Your task to perform on an android device: see creations saved in the google photos Image 0: 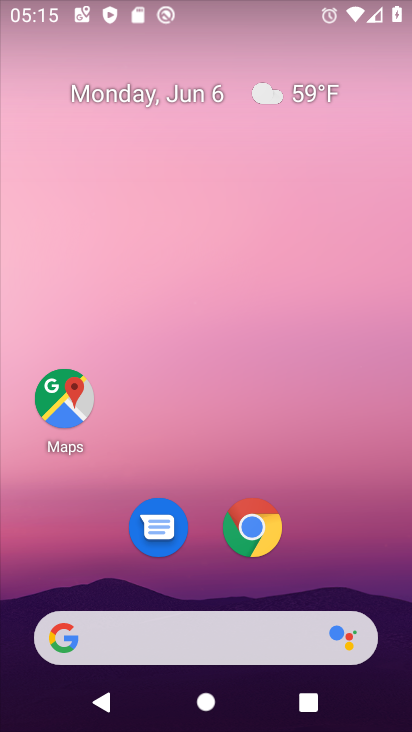
Step 0: drag from (402, 713) to (364, 102)
Your task to perform on an android device: see creations saved in the google photos Image 1: 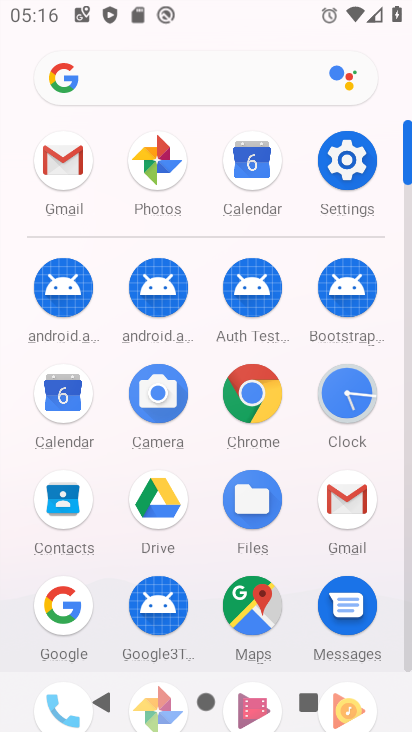
Step 1: click (142, 173)
Your task to perform on an android device: see creations saved in the google photos Image 2: 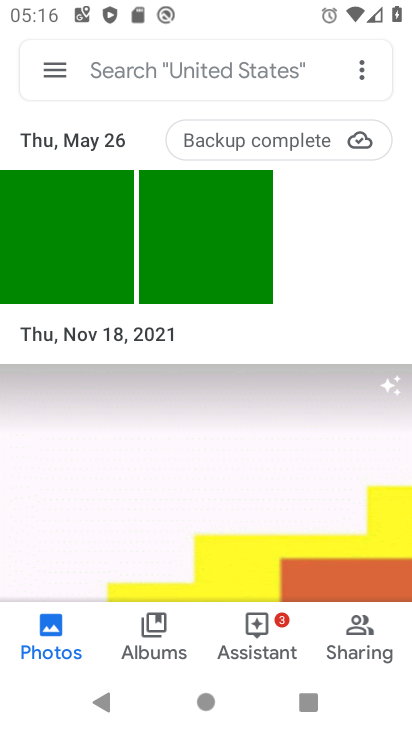
Step 2: drag from (225, 552) to (188, 226)
Your task to perform on an android device: see creations saved in the google photos Image 3: 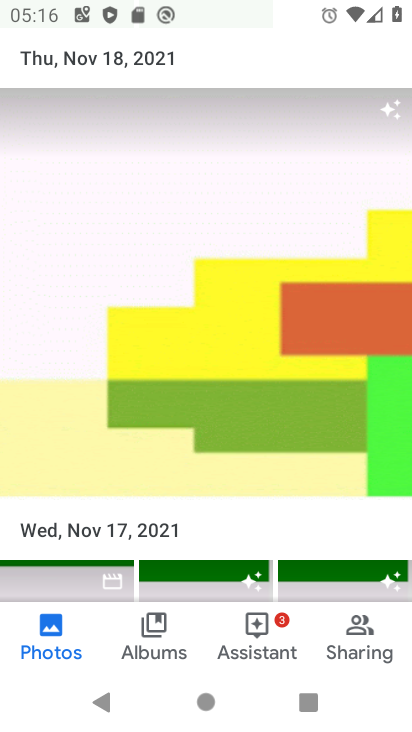
Step 3: drag from (201, 520) to (192, 180)
Your task to perform on an android device: see creations saved in the google photos Image 4: 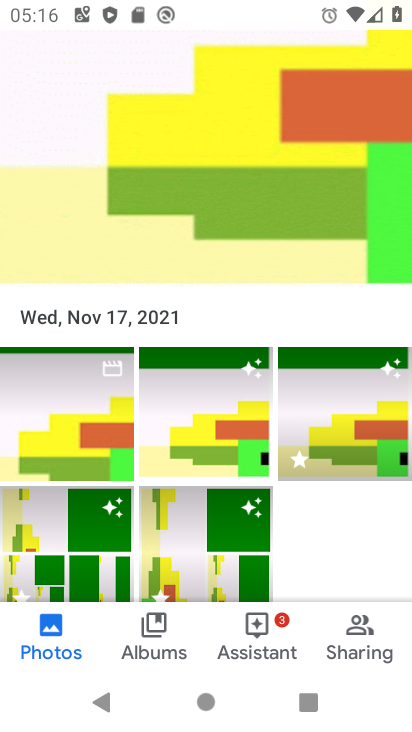
Step 4: click (84, 519)
Your task to perform on an android device: see creations saved in the google photos Image 5: 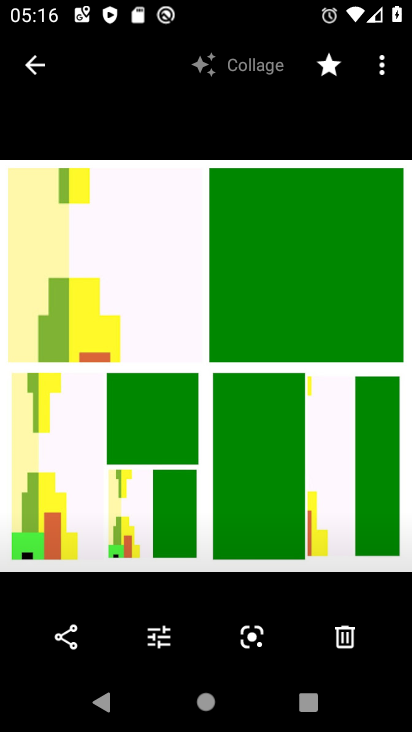
Step 5: click (33, 71)
Your task to perform on an android device: see creations saved in the google photos Image 6: 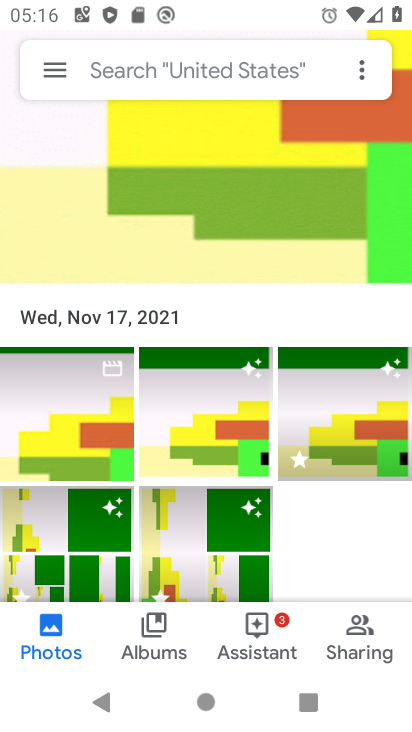
Step 6: click (229, 537)
Your task to perform on an android device: see creations saved in the google photos Image 7: 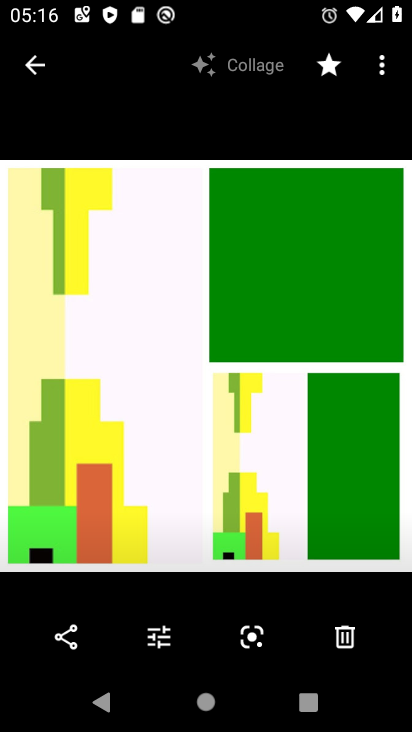
Step 7: click (25, 73)
Your task to perform on an android device: see creations saved in the google photos Image 8: 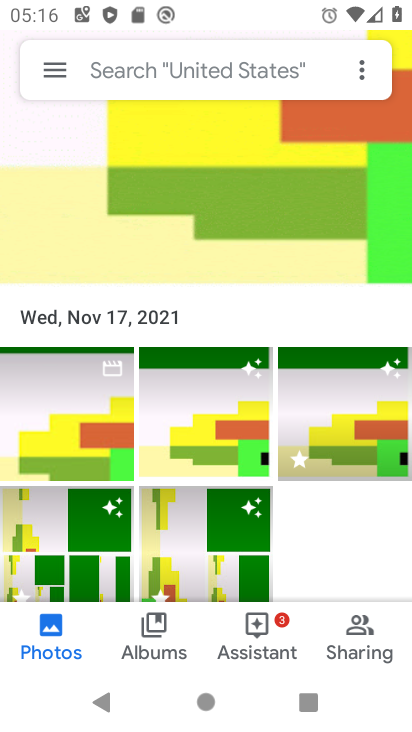
Step 8: task complete